Your task to perform on an android device: Go to internet settings Image 0: 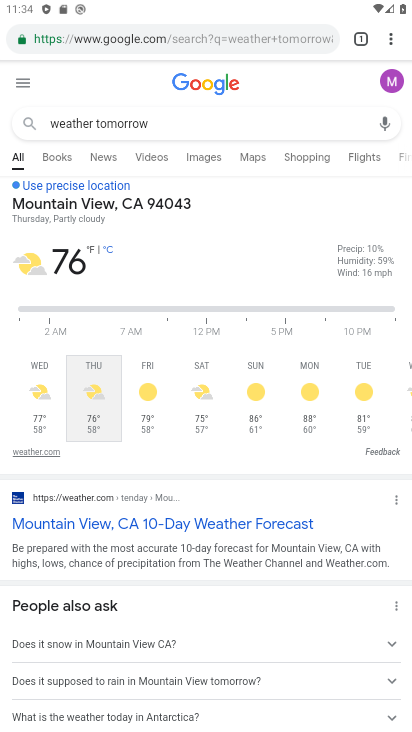
Step 0: press home button
Your task to perform on an android device: Go to internet settings Image 1: 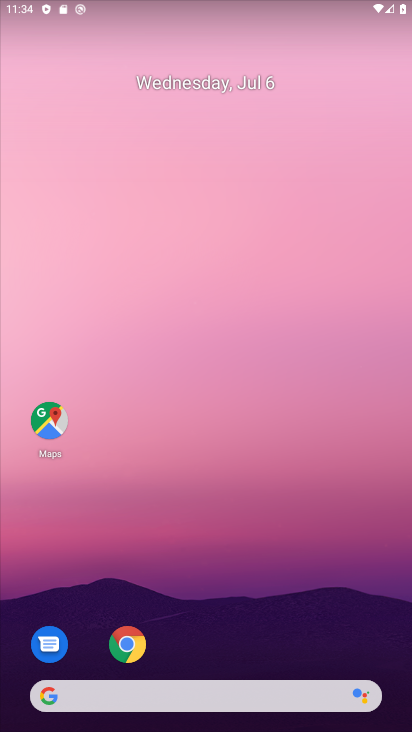
Step 1: drag from (205, 682) to (112, 2)
Your task to perform on an android device: Go to internet settings Image 2: 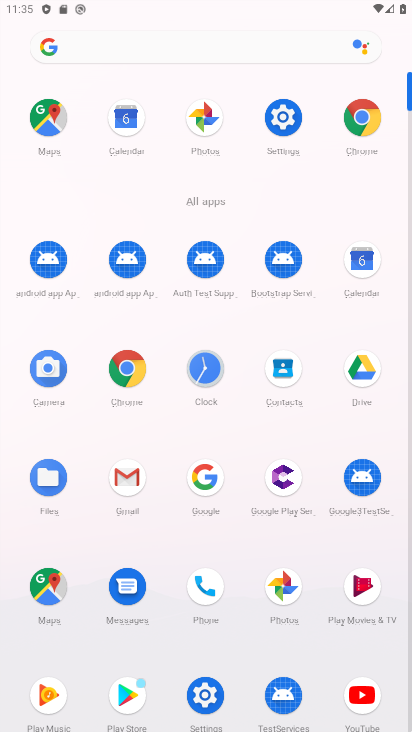
Step 2: click (287, 126)
Your task to perform on an android device: Go to internet settings Image 3: 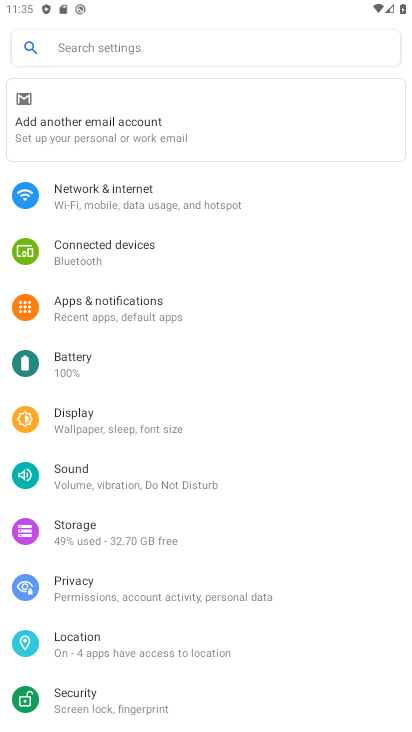
Step 3: click (133, 198)
Your task to perform on an android device: Go to internet settings Image 4: 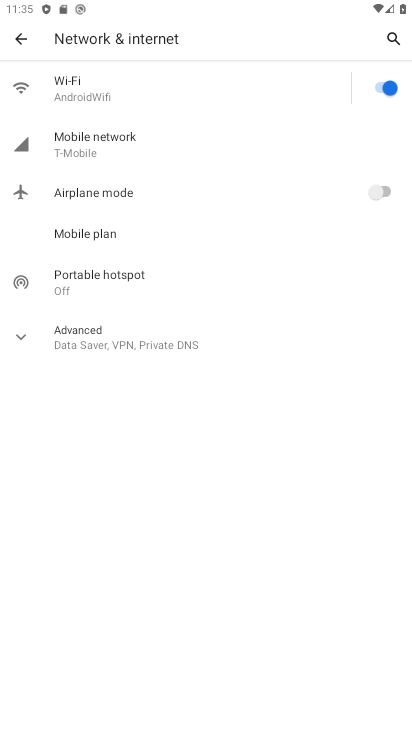
Step 4: task complete